Your task to perform on an android device: Open calendar and show me the second week of next month Image 0: 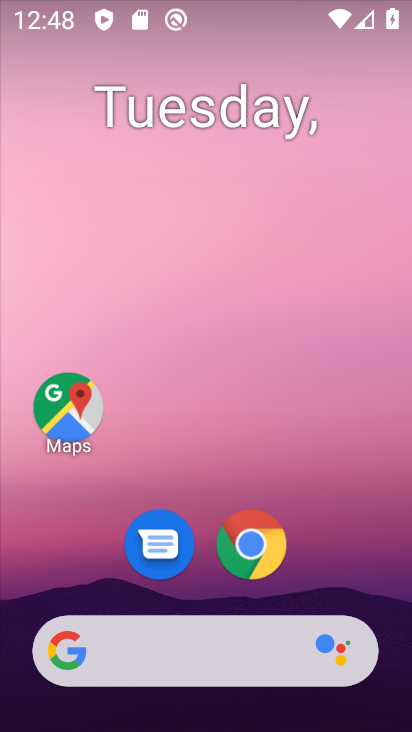
Step 0: drag from (387, 603) to (312, 137)
Your task to perform on an android device: Open calendar and show me the second week of next month Image 1: 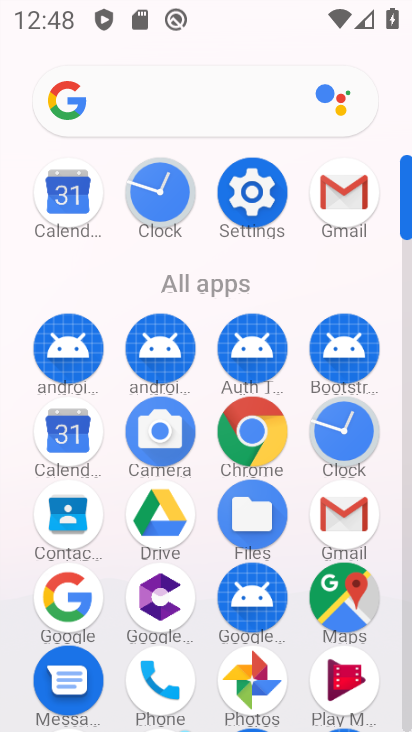
Step 1: click (64, 436)
Your task to perform on an android device: Open calendar and show me the second week of next month Image 2: 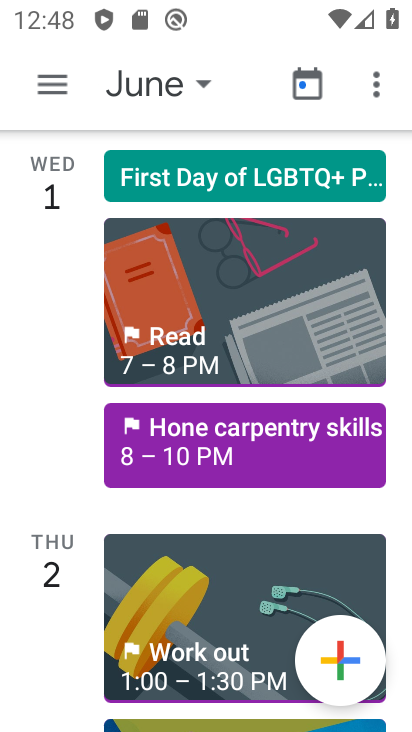
Step 2: click (45, 71)
Your task to perform on an android device: Open calendar and show me the second week of next month Image 3: 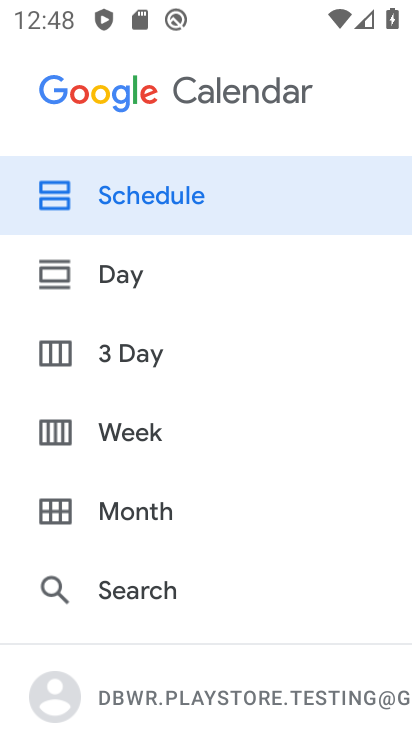
Step 3: click (150, 438)
Your task to perform on an android device: Open calendar and show me the second week of next month Image 4: 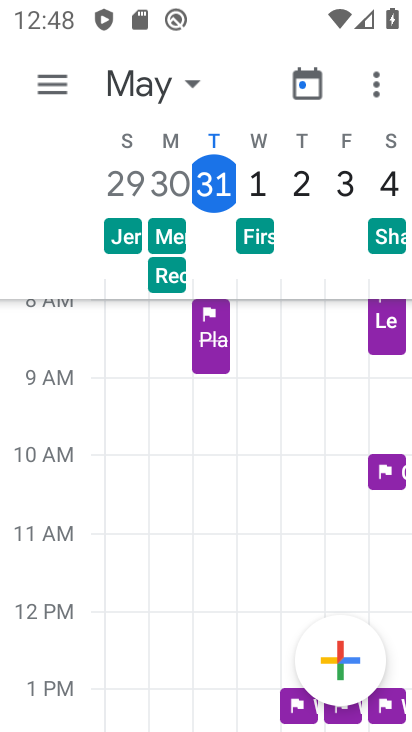
Step 4: click (188, 84)
Your task to perform on an android device: Open calendar and show me the second week of next month Image 5: 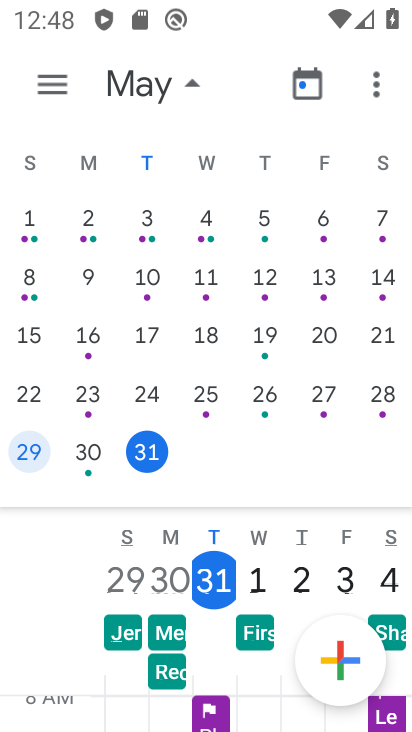
Step 5: drag from (376, 341) to (53, 324)
Your task to perform on an android device: Open calendar and show me the second week of next month Image 6: 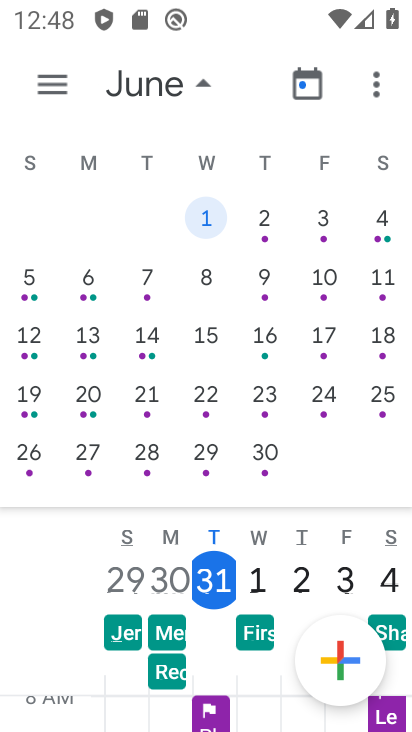
Step 6: click (19, 337)
Your task to perform on an android device: Open calendar and show me the second week of next month Image 7: 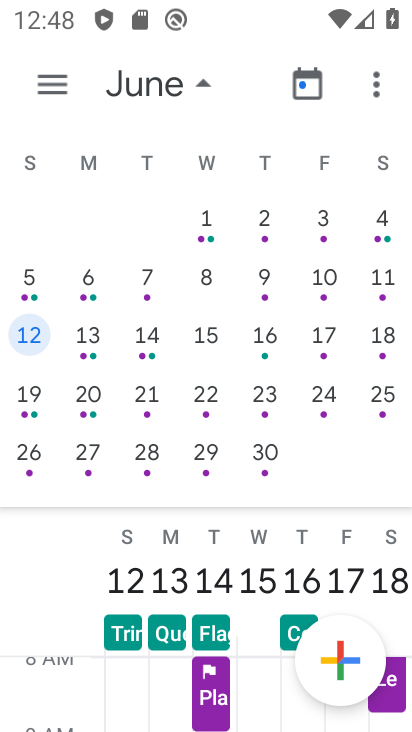
Step 7: task complete